Your task to perform on an android device: uninstall "Pluto TV - Live TV and Movies" Image 0: 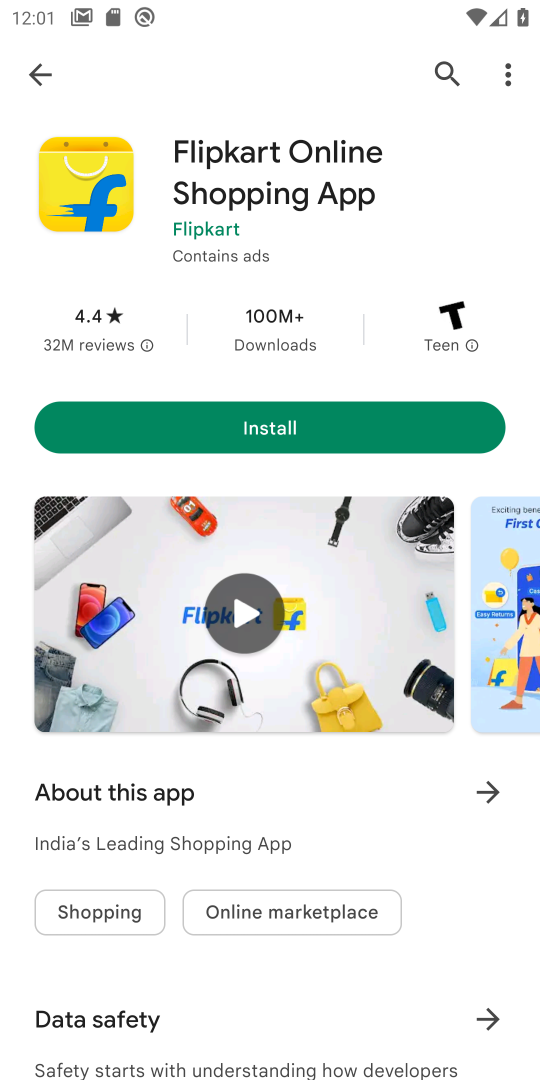
Step 0: click (436, 65)
Your task to perform on an android device: uninstall "Pluto TV - Live TV and Movies" Image 1: 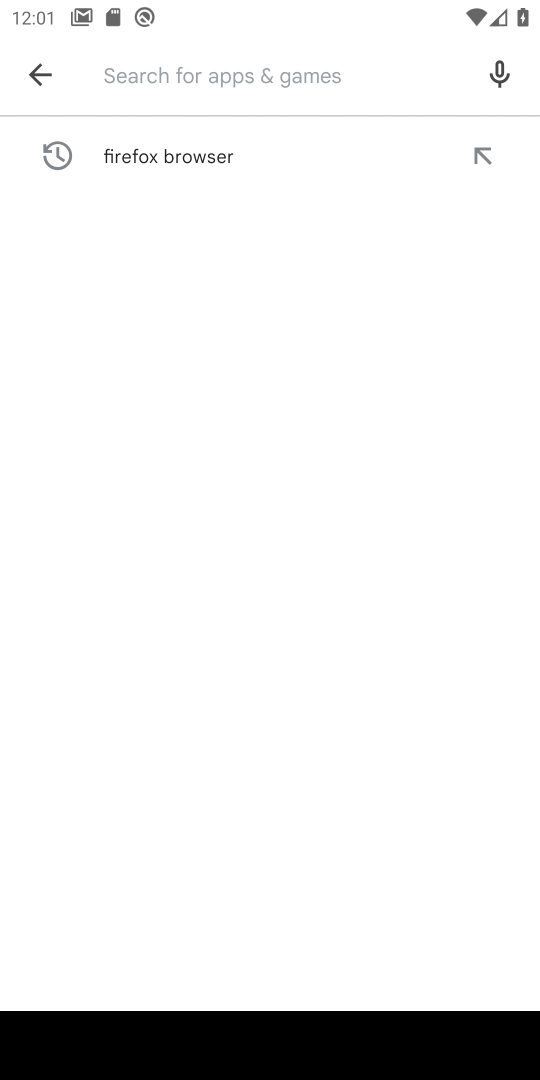
Step 1: type "Pluto TV - Live TV and Movies"
Your task to perform on an android device: uninstall "Pluto TV - Live TV and Movies" Image 2: 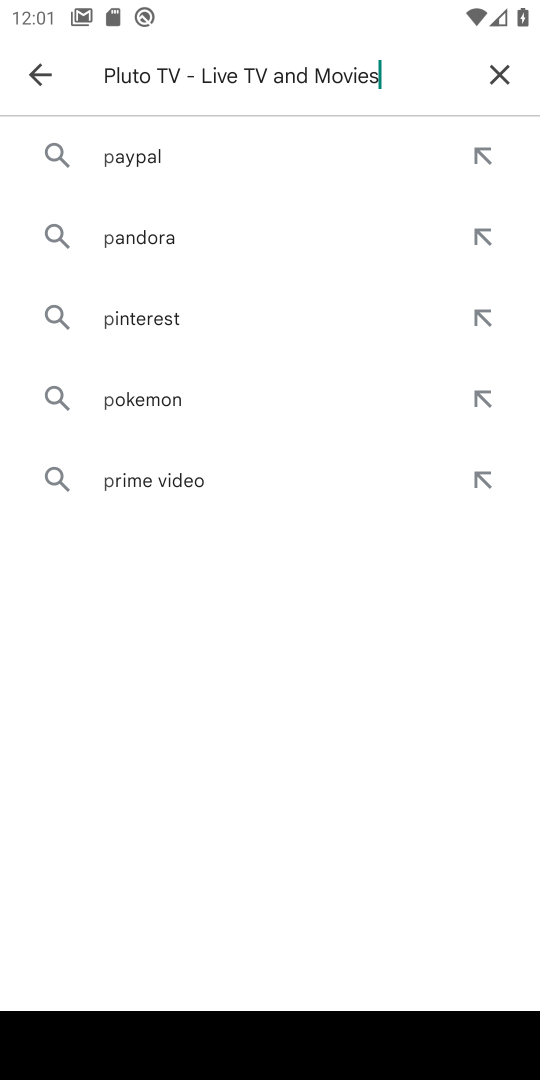
Step 2: type ""
Your task to perform on an android device: uninstall "Pluto TV - Live TV and Movies" Image 3: 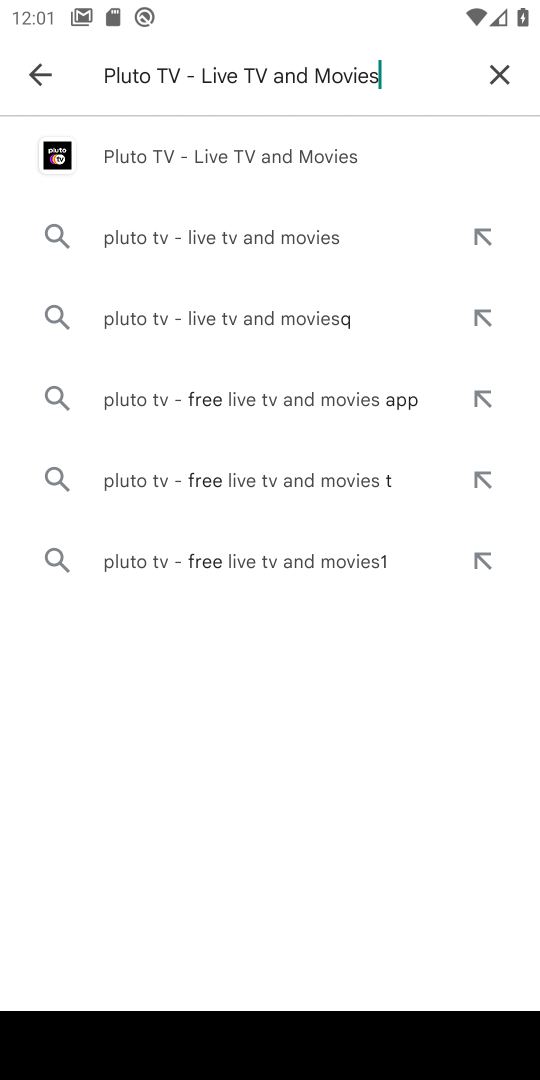
Step 3: click (346, 168)
Your task to perform on an android device: uninstall "Pluto TV - Live TV and Movies" Image 4: 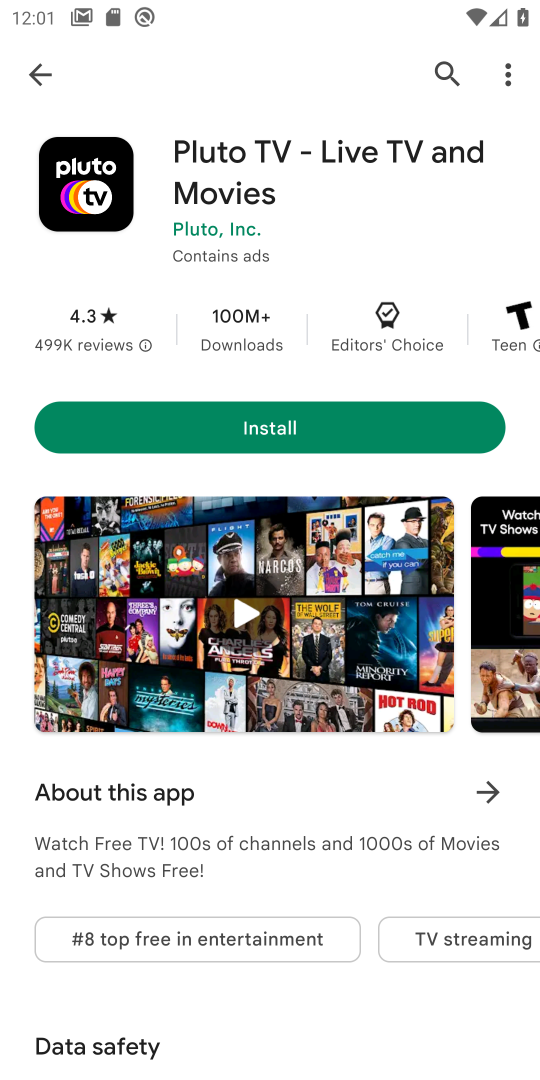
Step 4: task complete